Your task to perform on an android device: Clear the shopping cart on amazon. Add bose soundlink mini to the cart on amazon Image 0: 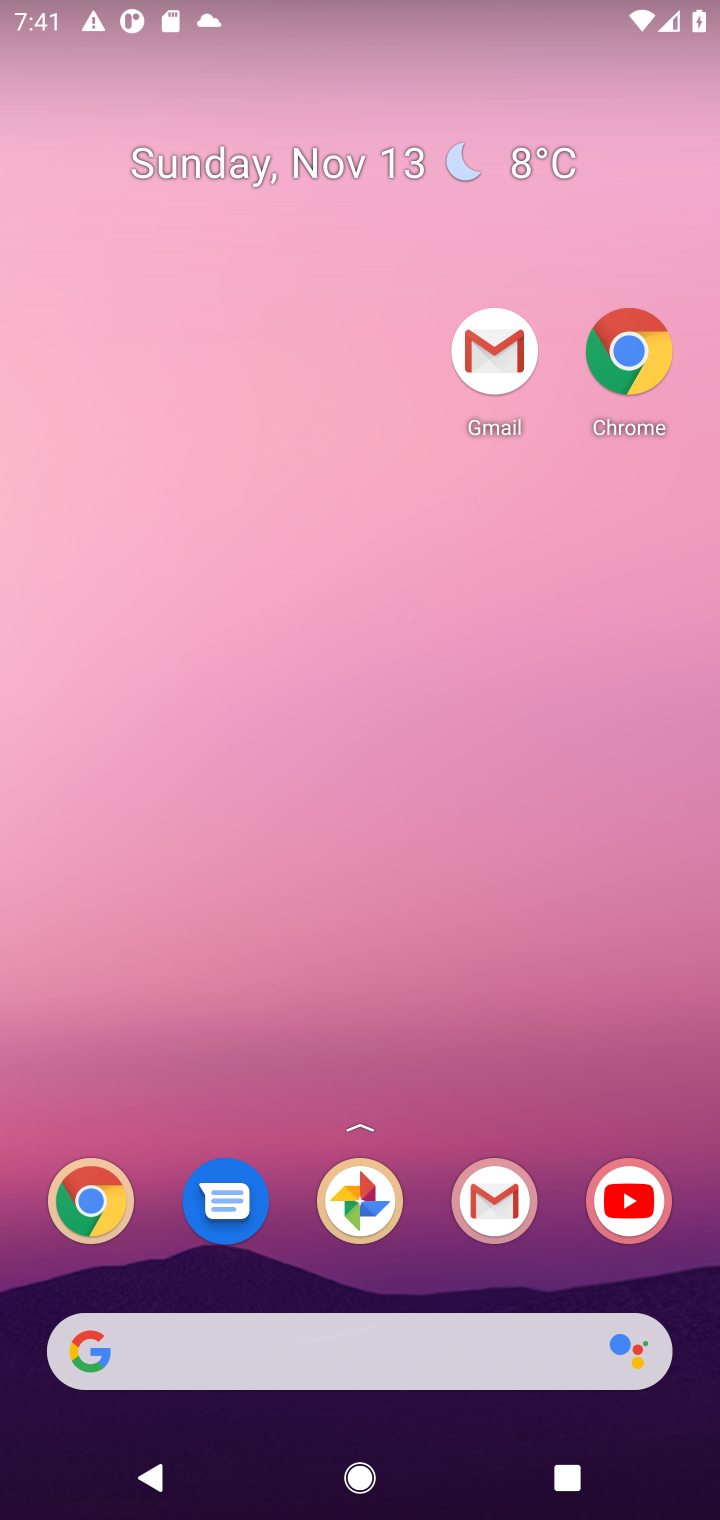
Step 0: drag from (419, 1276) to (286, 287)
Your task to perform on an android device: Clear the shopping cart on amazon. Add bose soundlink mini to the cart on amazon Image 1: 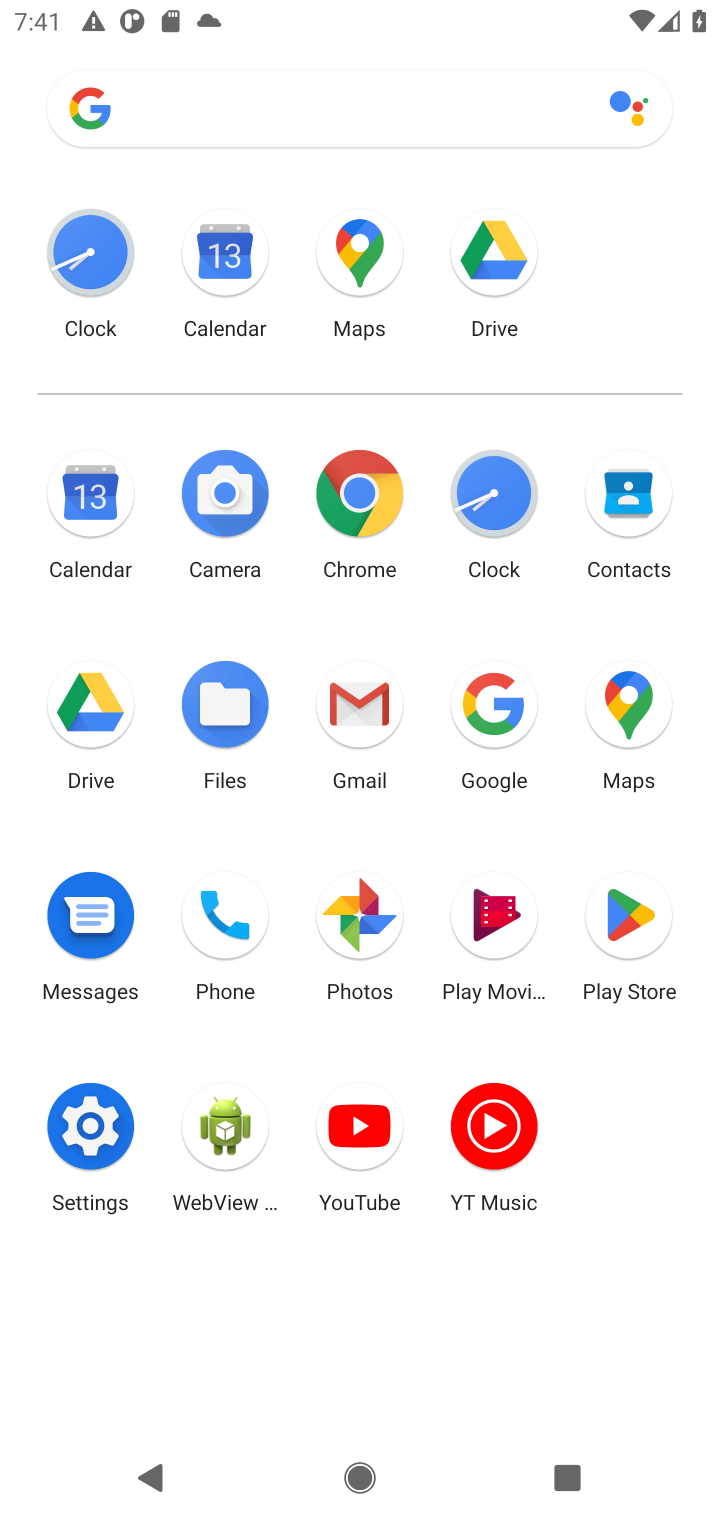
Step 1: click (363, 499)
Your task to perform on an android device: Clear the shopping cart on amazon. Add bose soundlink mini to the cart on amazon Image 2: 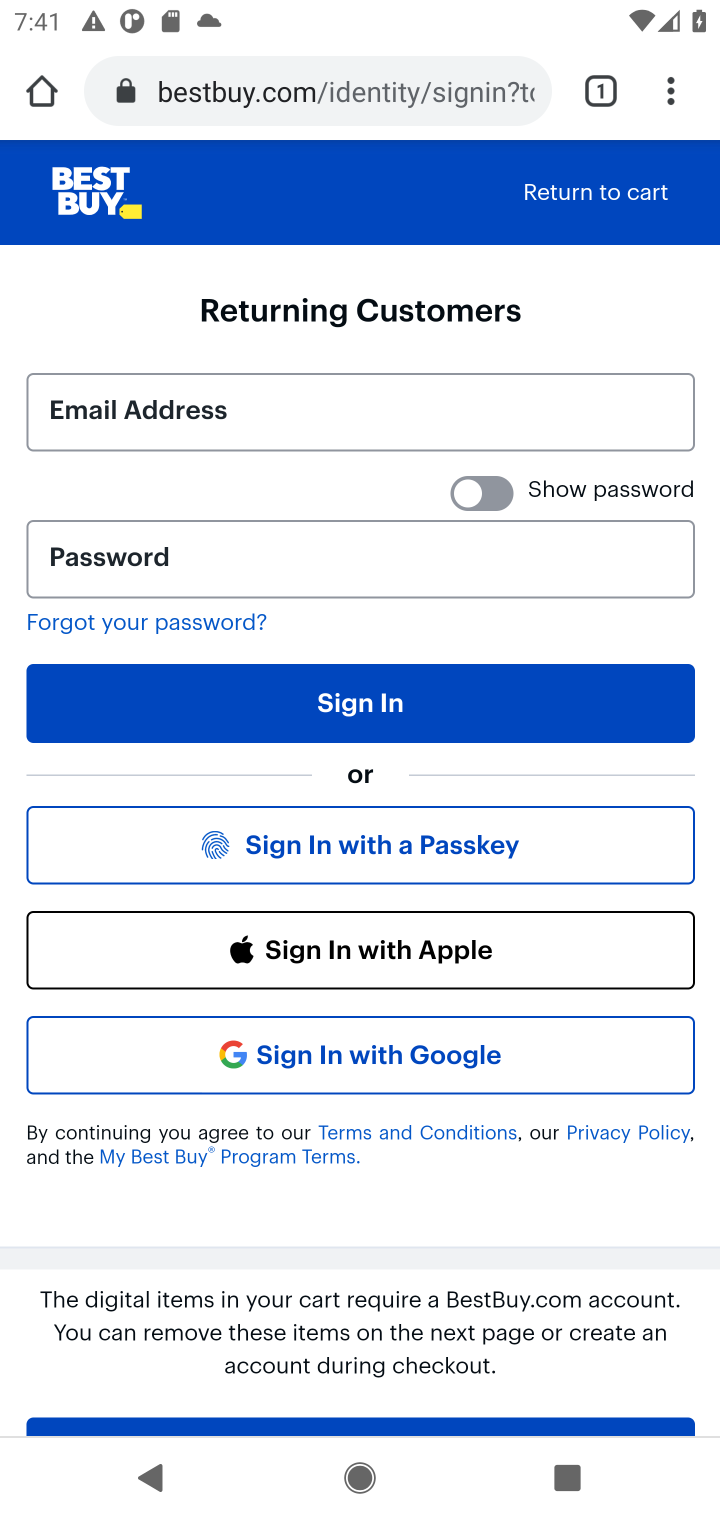
Step 2: click (420, 89)
Your task to perform on an android device: Clear the shopping cart on amazon. Add bose soundlink mini to the cart on amazon Image 3: 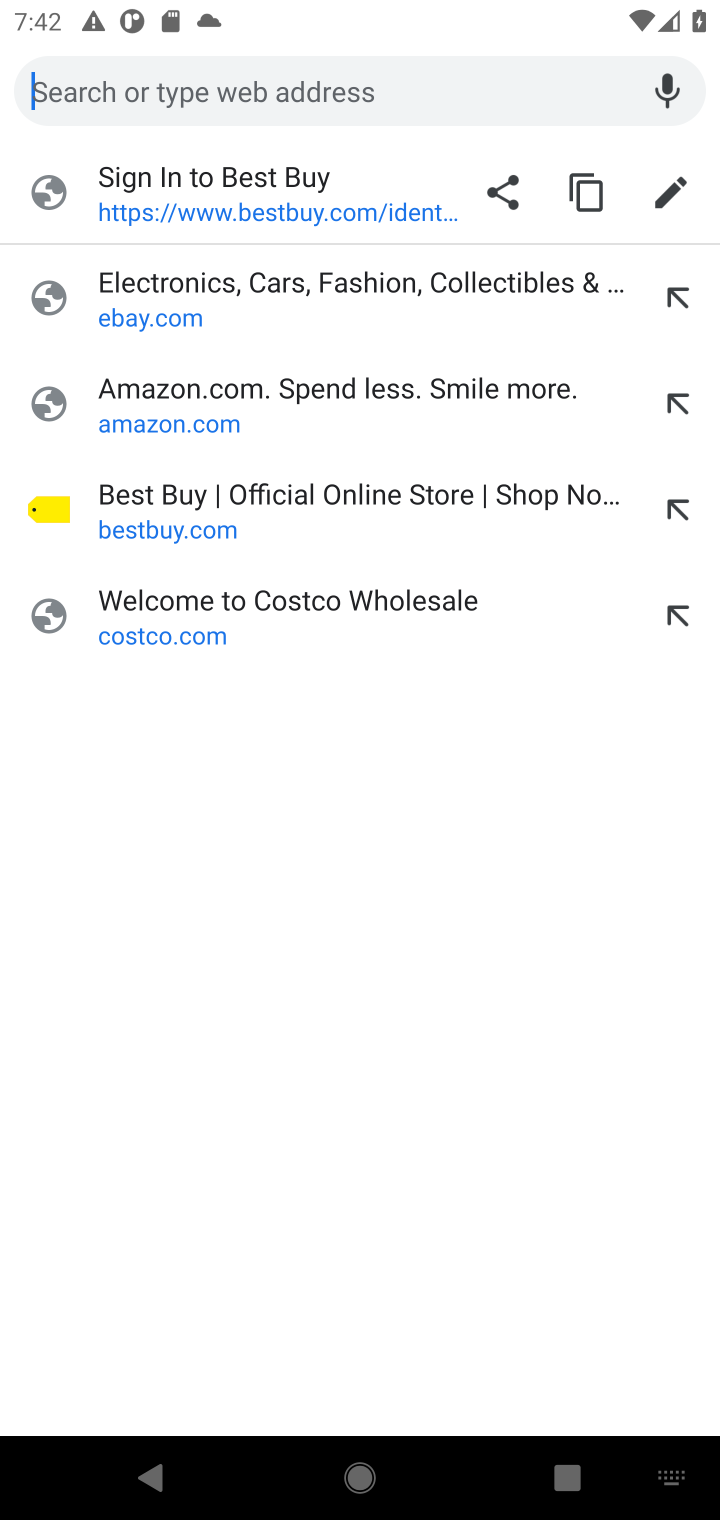
Step 3: type "amazon.com"
Your task to perform on an android device: Clear the shopping cart on amazon. Add bose soundlink mini to the cart on amazon Image 4: 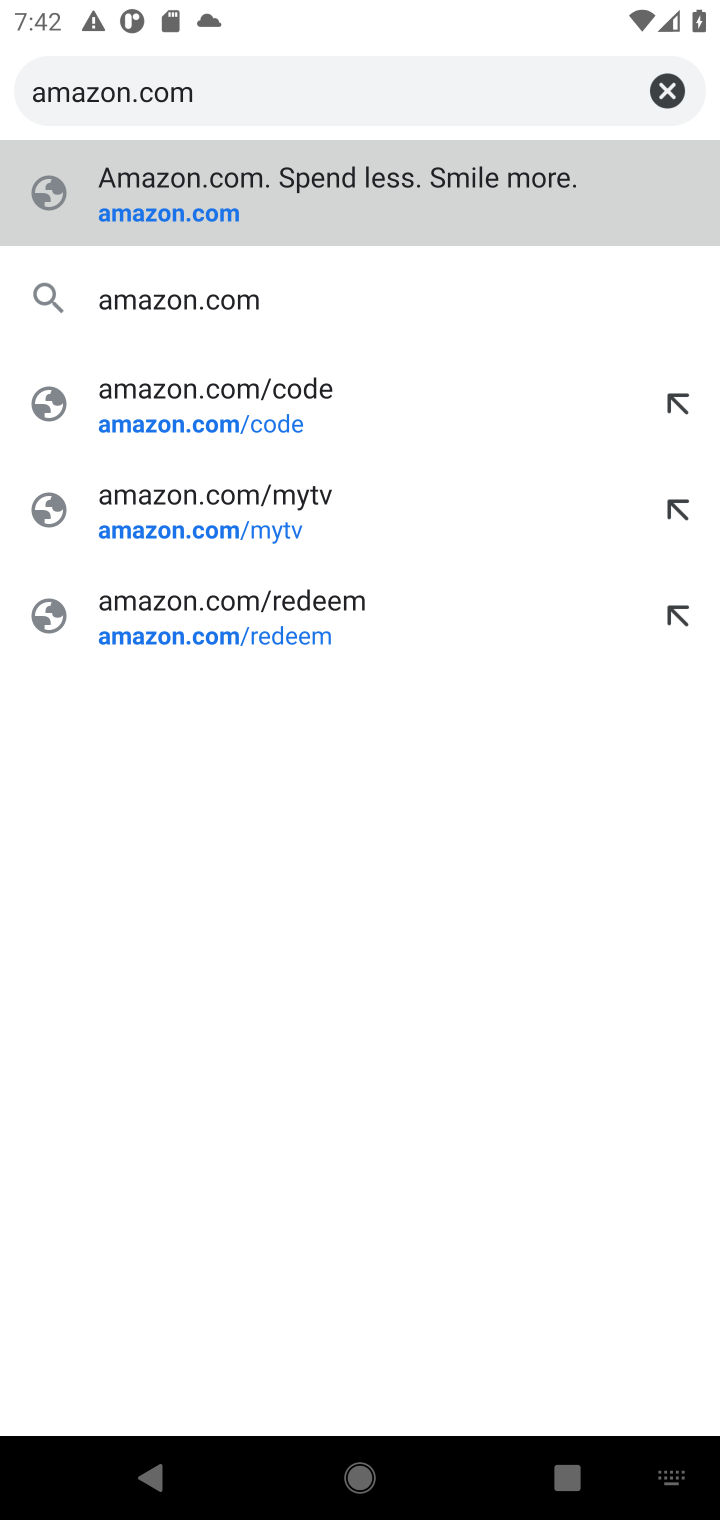
Step 4: press enter
Your task to perform on an android device: Clear the shopping cart on amazon. Add bose soundlink mini to the cart on amazon Image 5: 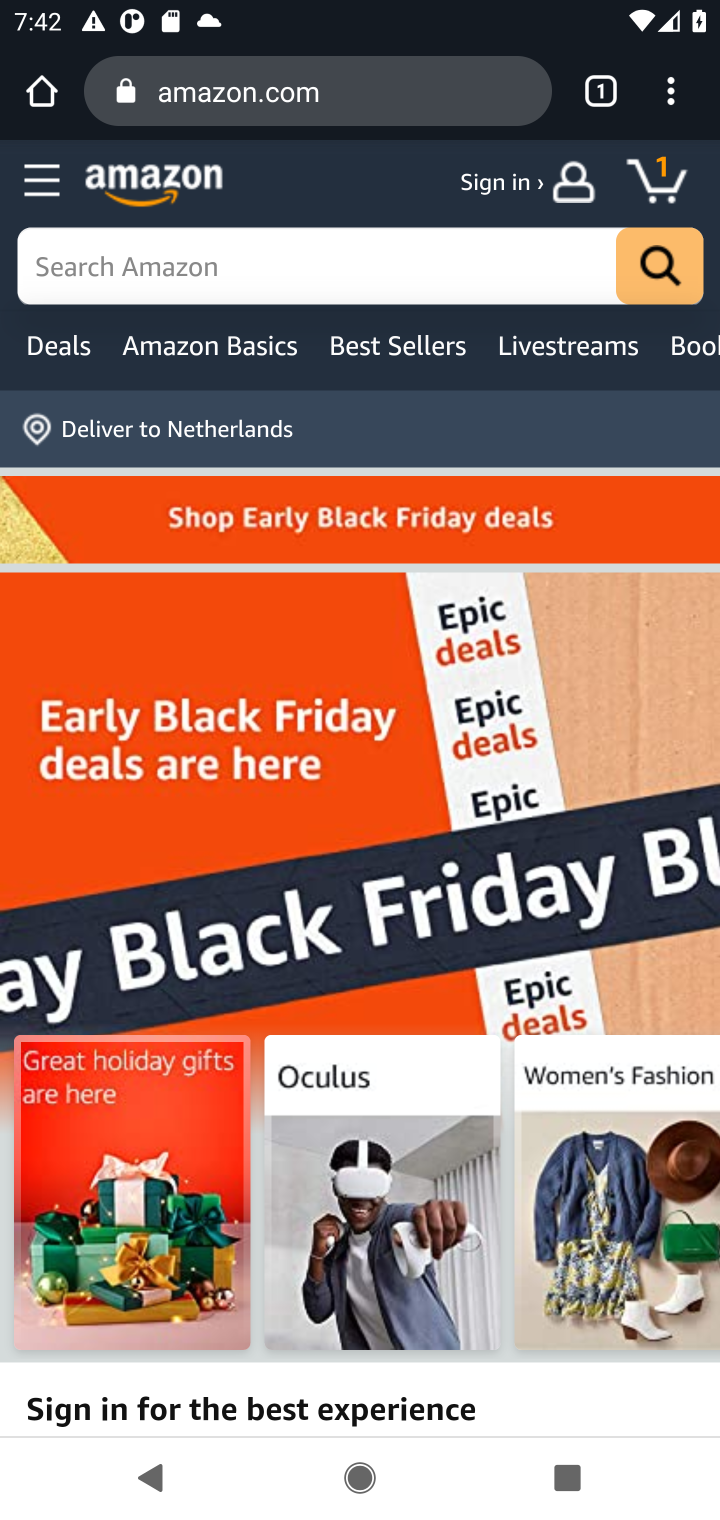
Step 5: click (657, 177)
Your task to perform on an android device: Clear the shopping cart on amazon. Add bose soundlink mini to the cart on amazon Image 6: 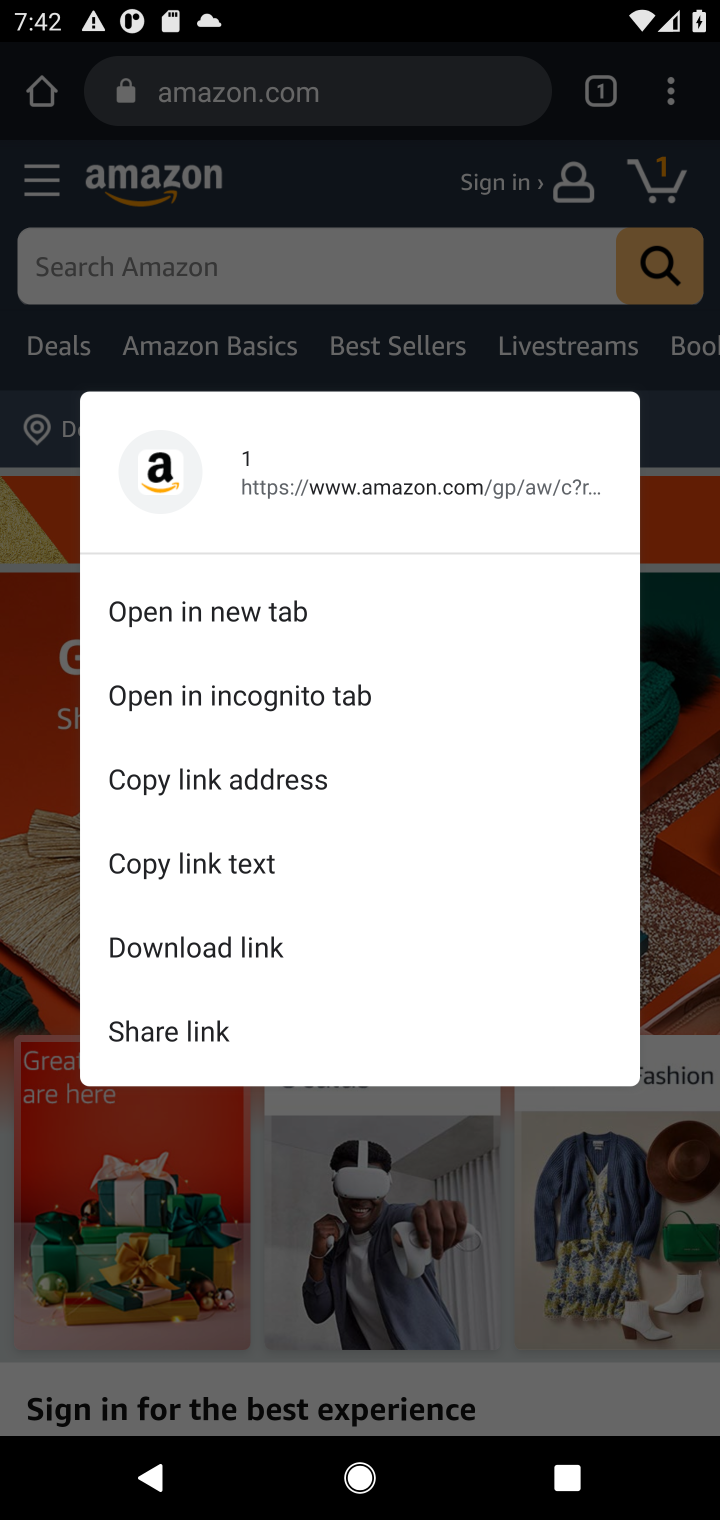
Step 6: click (663, 170)
Your task to perform on an android device: Clear the shopping cart on amazon. Add bose soundlink mini to the cart on amazon Image 7: 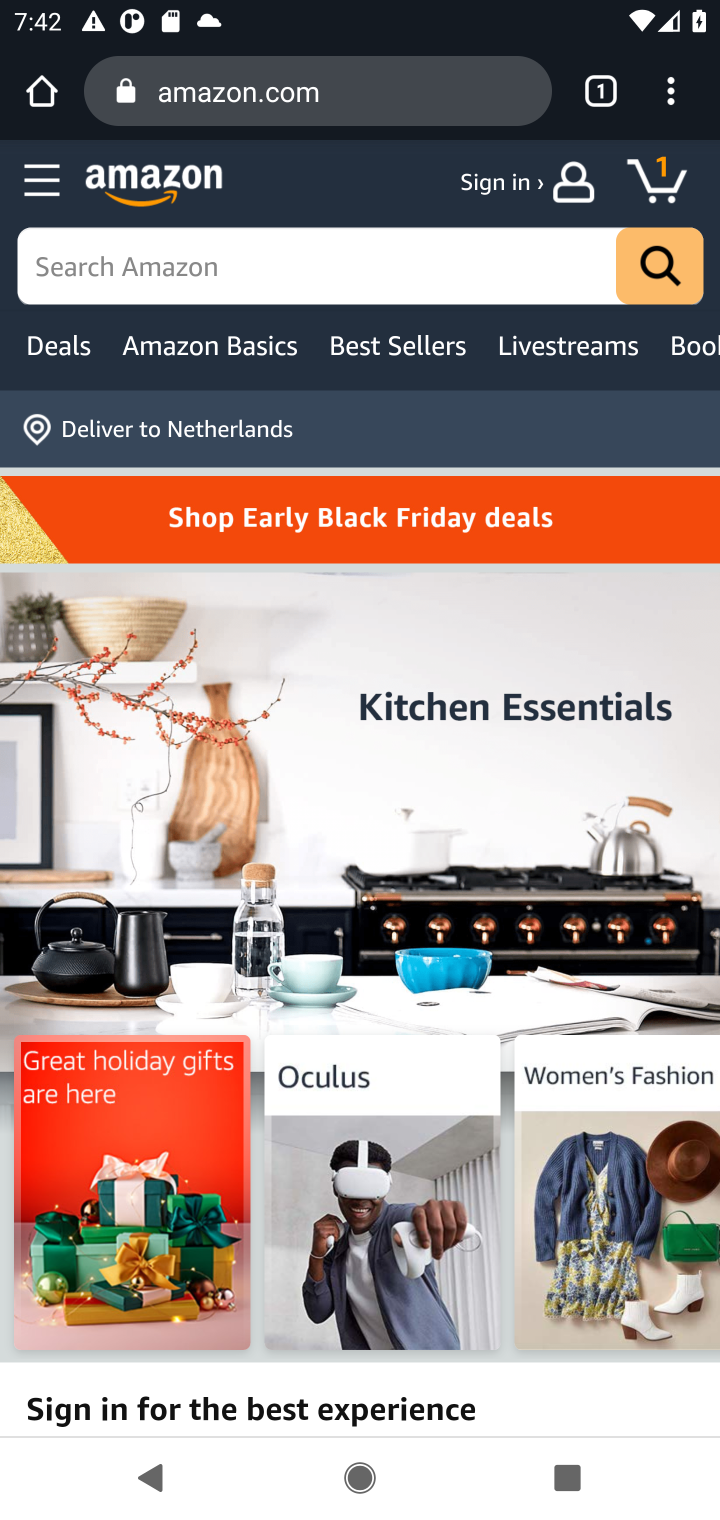
Step 7: click (663, 184)
Your task to perform on an android device: Clear the shopping cart on amazon. Add bose soundlink mini to the cart on amazon Image 8: 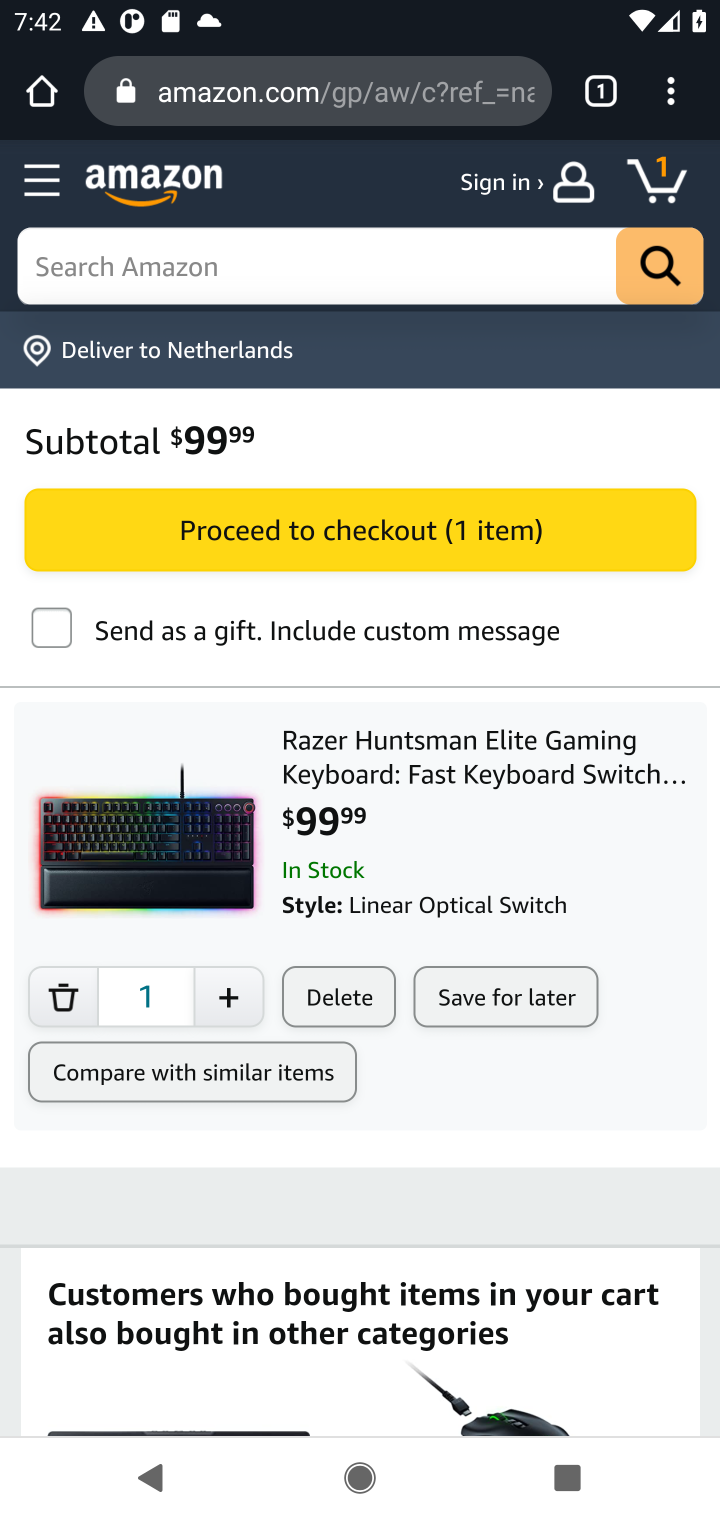
Step 8: click (326, 987)
Your task to perform on an android device: Clear the shopping cart on amazon. Add bose soundlink mini to the cart on amazon Image 9: 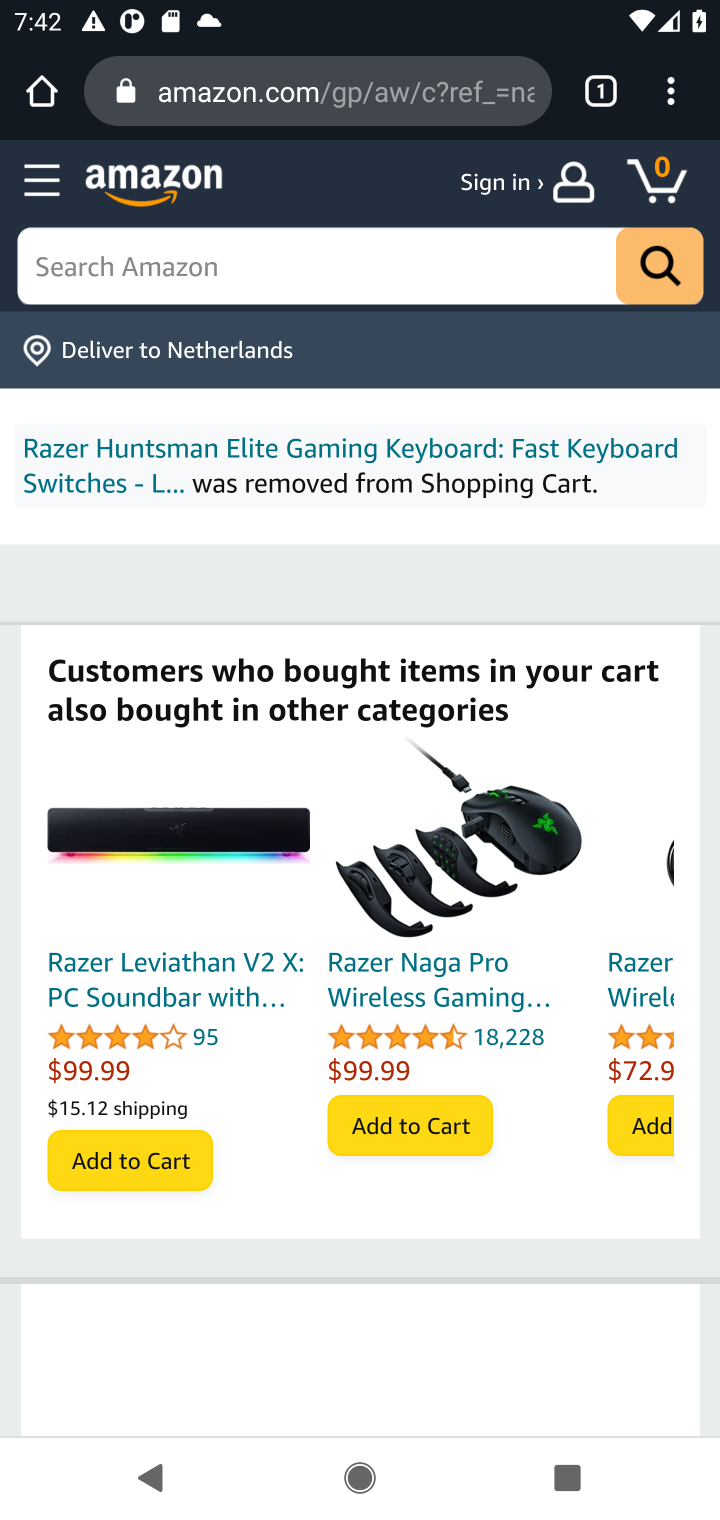
Step 9: click (325, 250)
Your task to perform on an android device: Clear the shopping cart on amazon. Add bose soundlink mini to the cart on amazon Image 10: 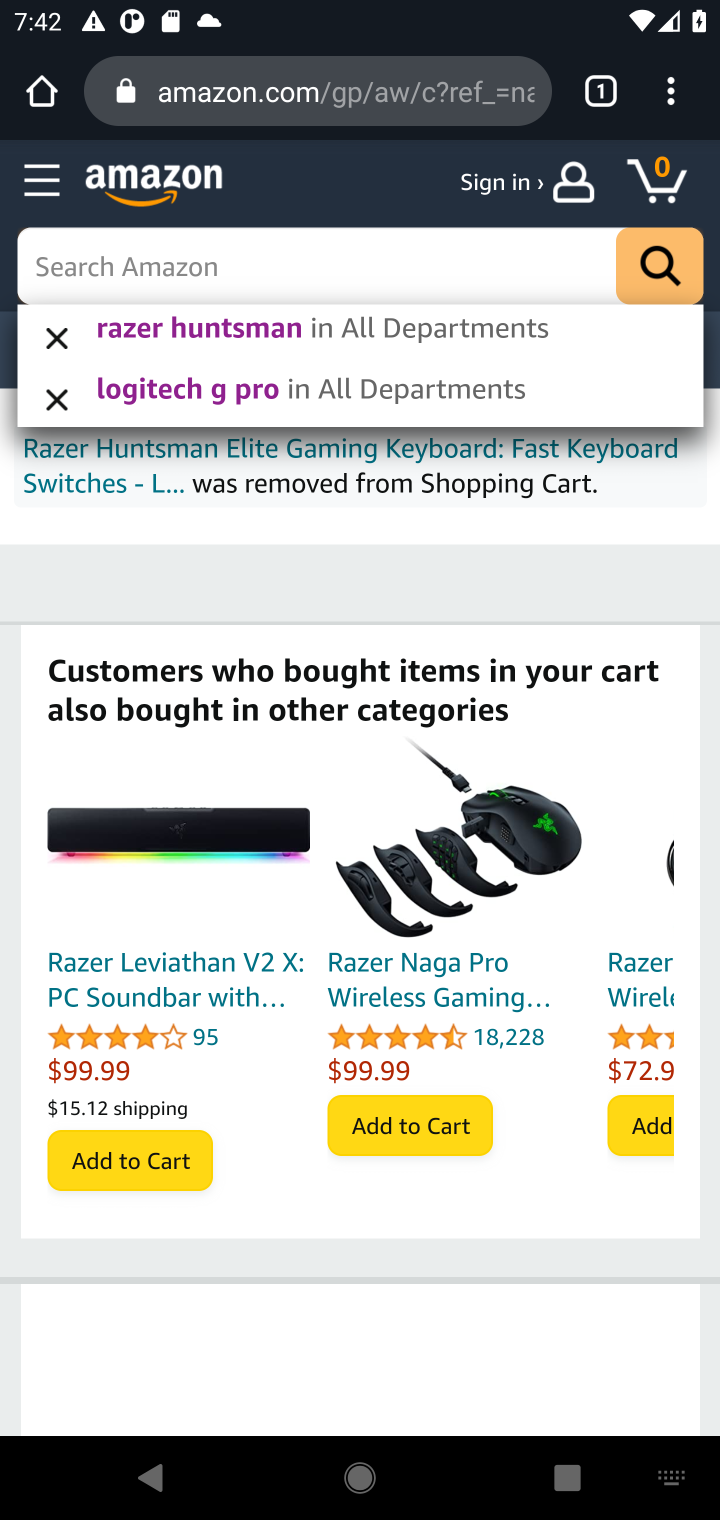
Step 10: type "bose soundlink mini"
Your task to perform on an android device: Clear the shopping cart on amazon. Add bose soundlink mini to the cart on amazon Image 11: 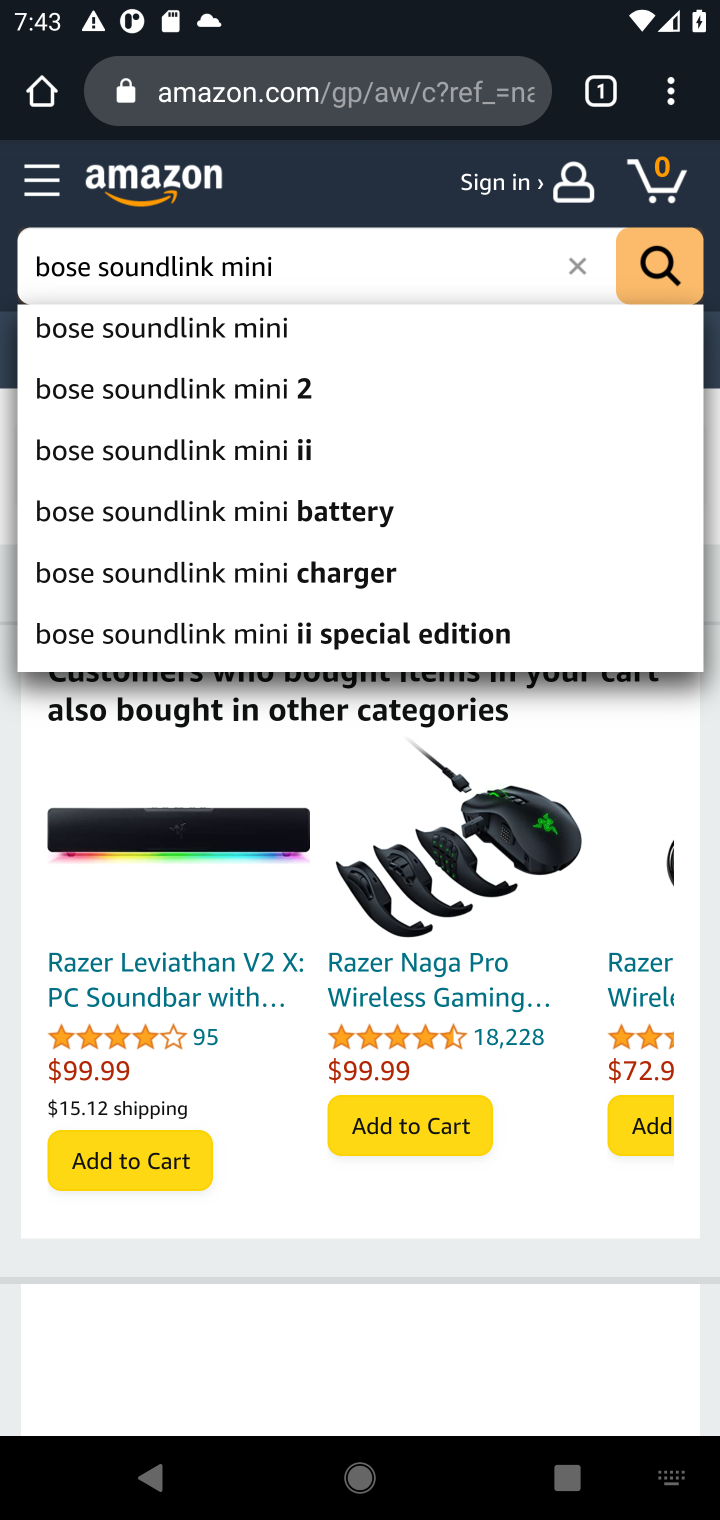
Step 11: press enter
Your task to perform on an android device: Clear the shopping cart on amazon. Add bose soundlink mini to the cart on amazon Image 12: 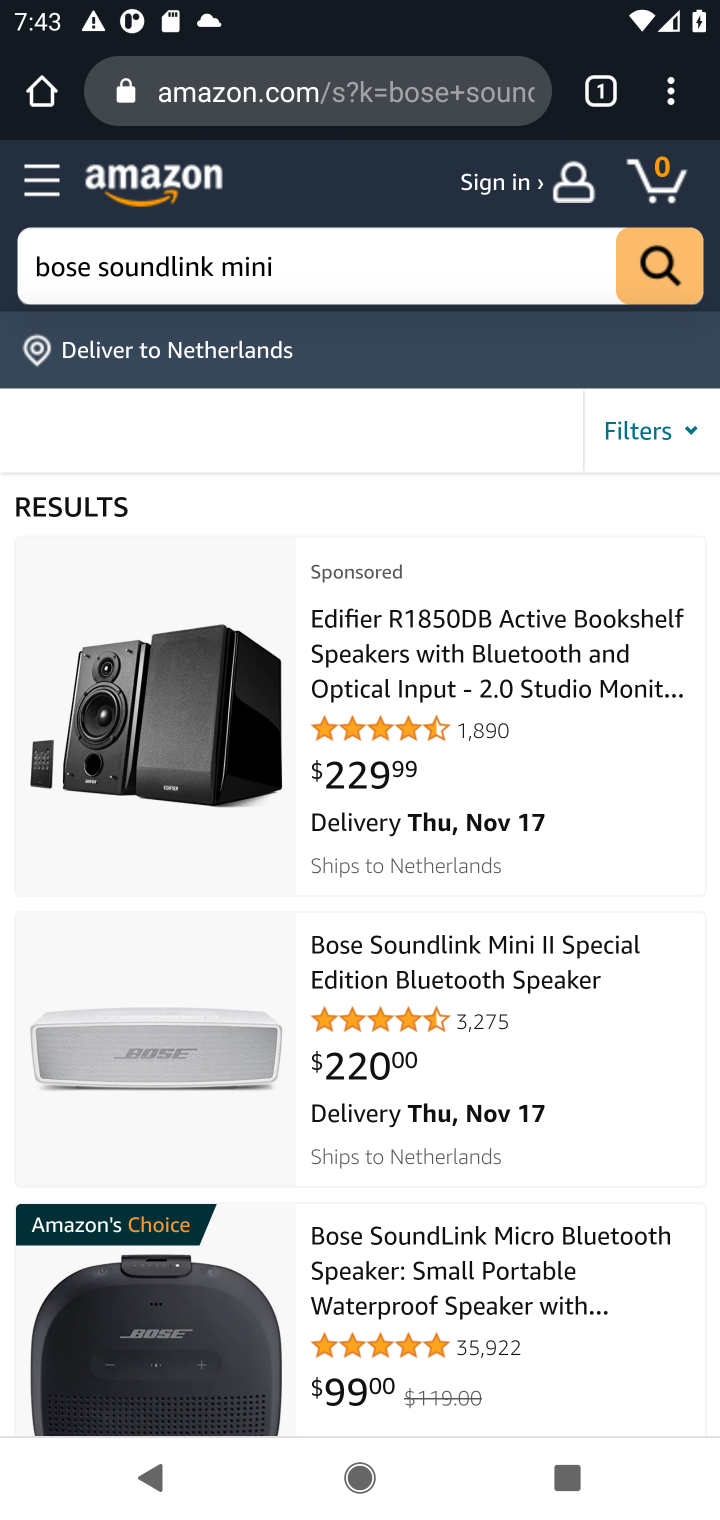
Step 12: press enter
Your task to perform on an android device: Clear the shopping cart on amazon. Add bose soundlink mini to the cart on amazon Image 13: 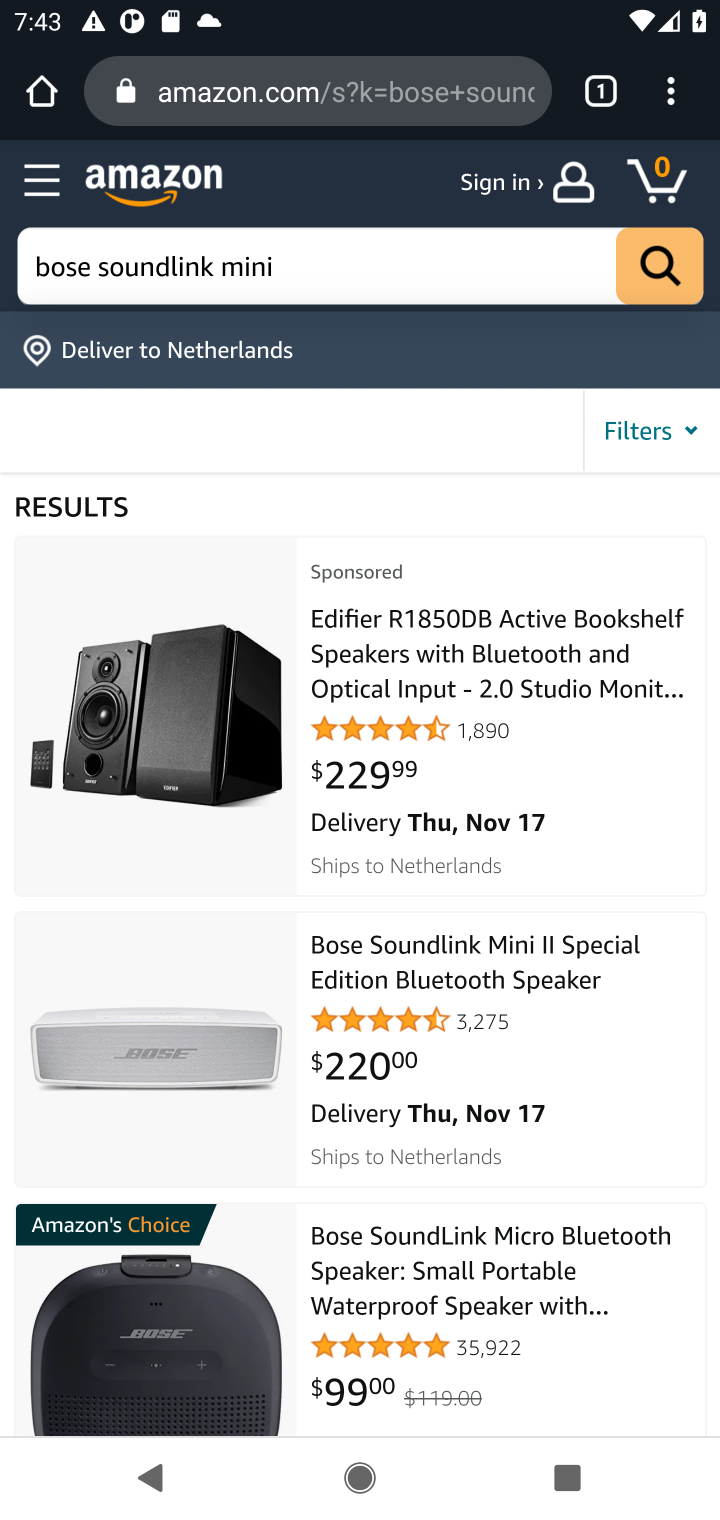
Step 13: click (459, 990)
Your task to perform on an android device: Clear the shopping cart on amazon. Add bose soundlink mini to the cart on amazon Image 14: 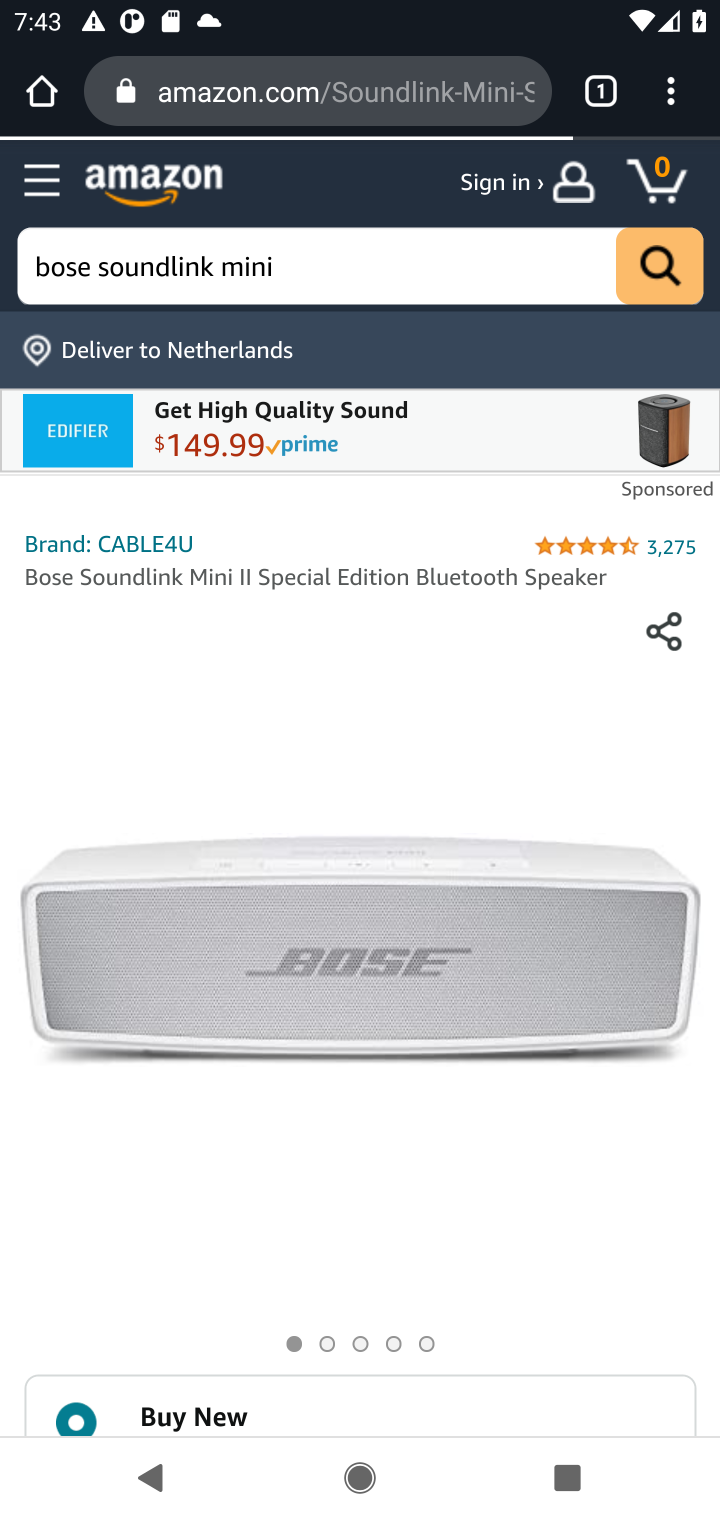
Step 14: drag from (391, 1050) to (366, 124)
Your task to perform on an android device: Clear the shopping cart on amazon. Add bose soundlink mini to the cart on amazon Image 15: 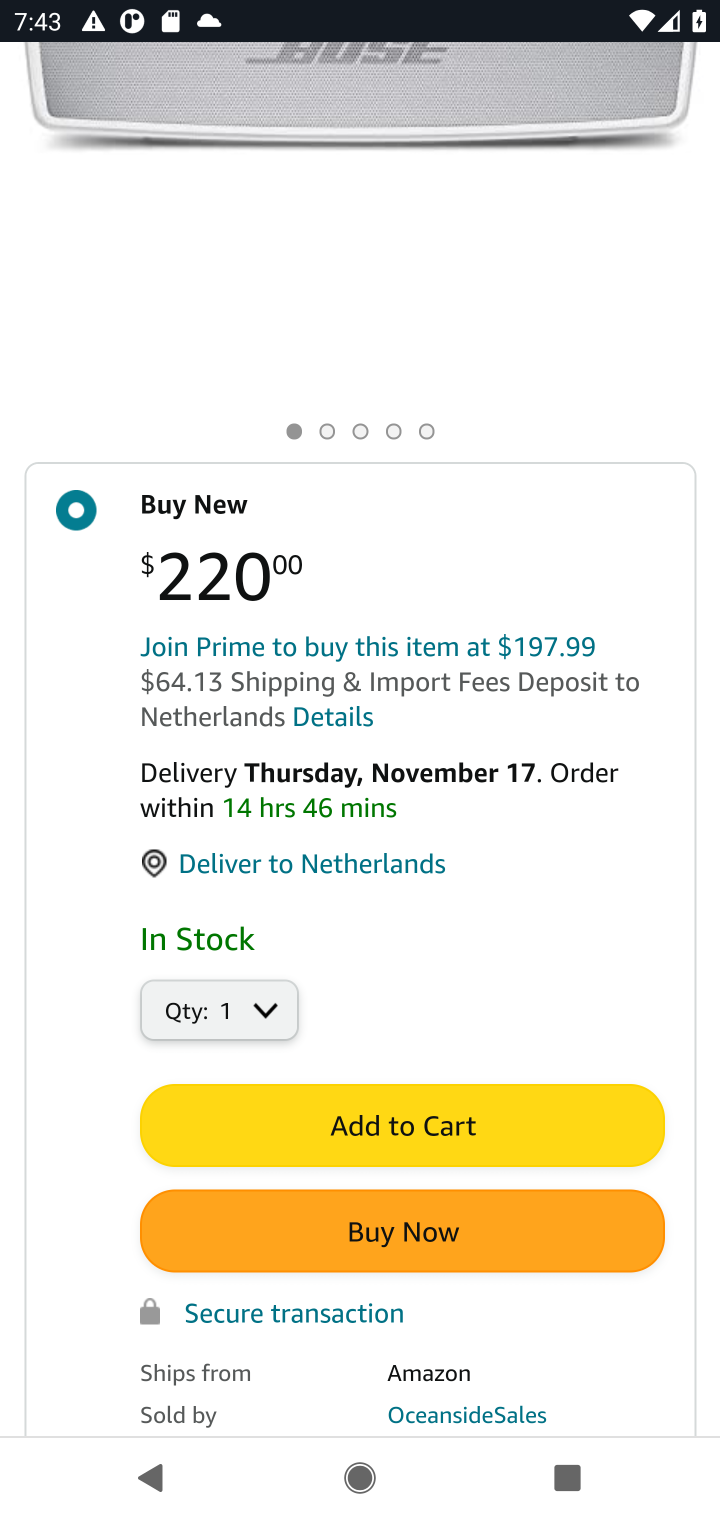
Step 15: drag from (560, 436) to (493, 1388)
Your task to perform on an android device: Clear the shopping cart on amazon. Add bose soundlink mini to the cart on amazon Image 16: 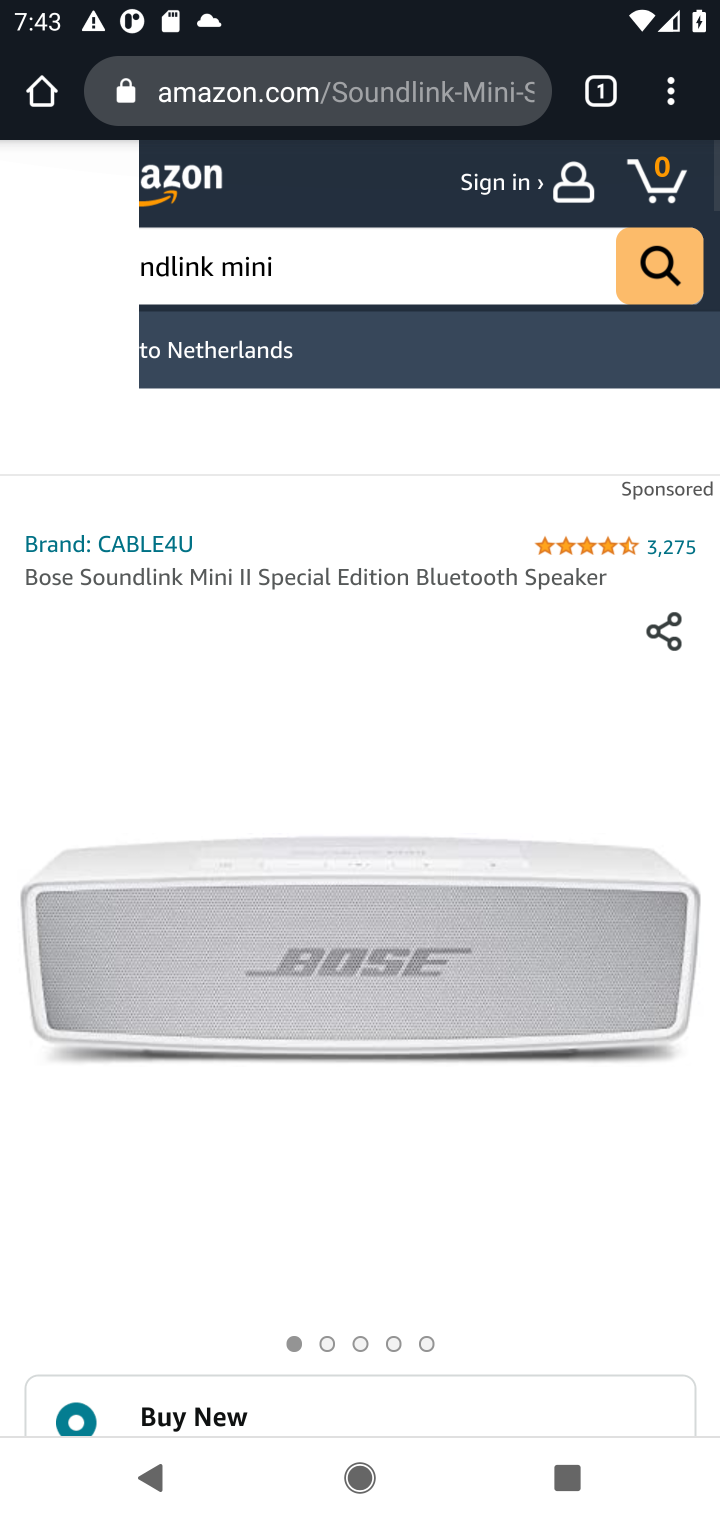
Step 16: drag from (474, 330) to (436, 57)
Your task to perform on an android device: Clear the shopping cart on amazon. Add bose soundlink mini to the cart on amazon Image 17: 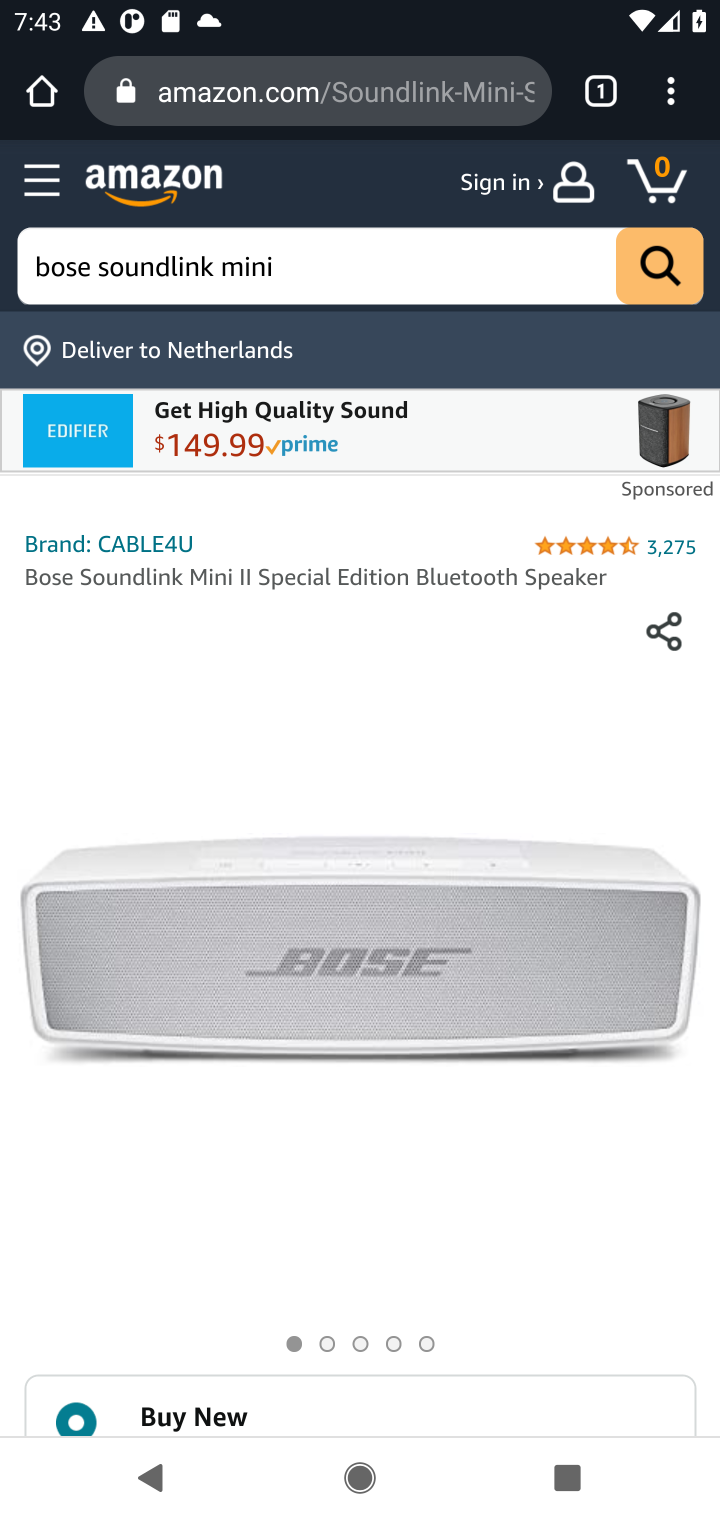
Step 17: drag from (387, 1095) to (467, 156)
Your task to perform on an android device: Clear the shopping cart on amazon. Add bose soundlink mini to the cart on amazon Image 18: 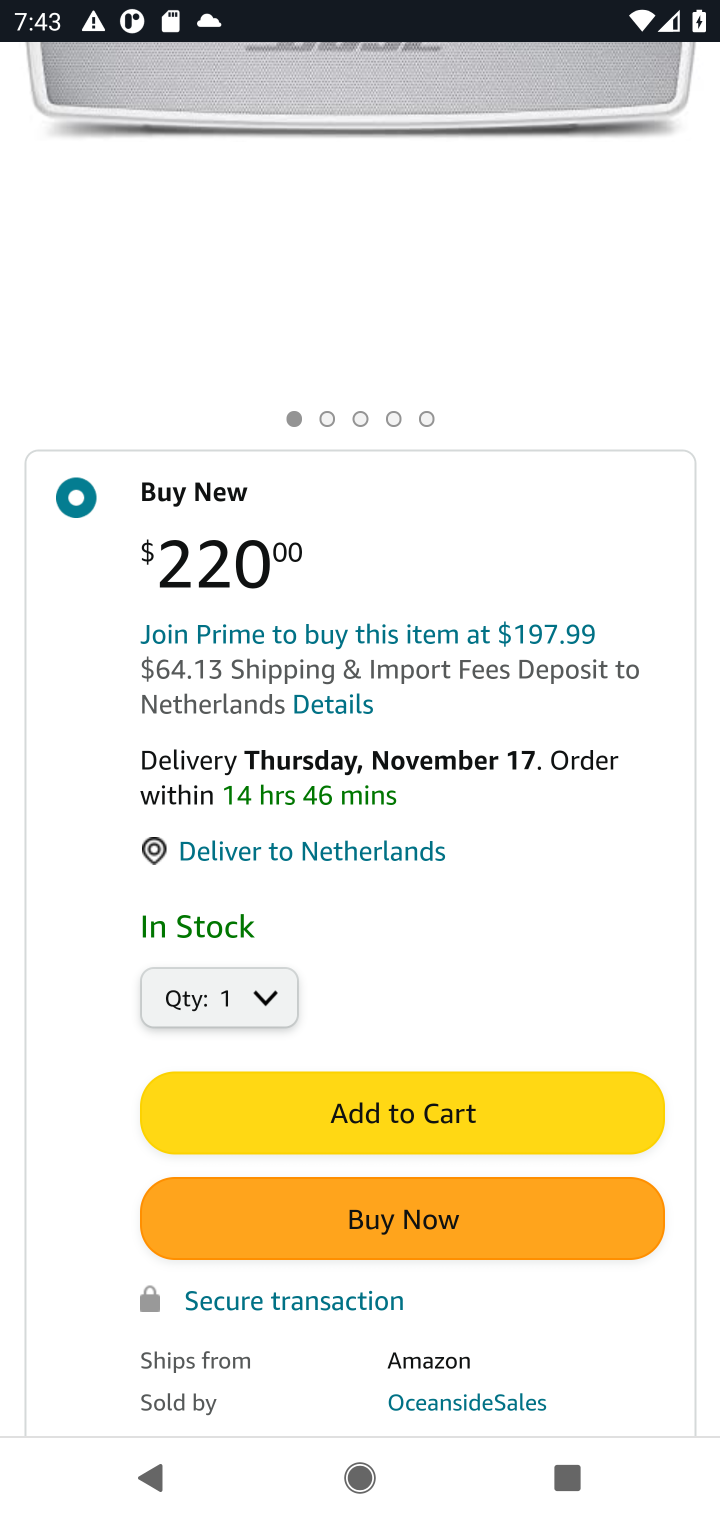
Step 18: click (445, 1112)
Your task to perform on an android device: Clear the shopping cart on amazon. Add bose soundlink mini to the cart on amazon Image 19: 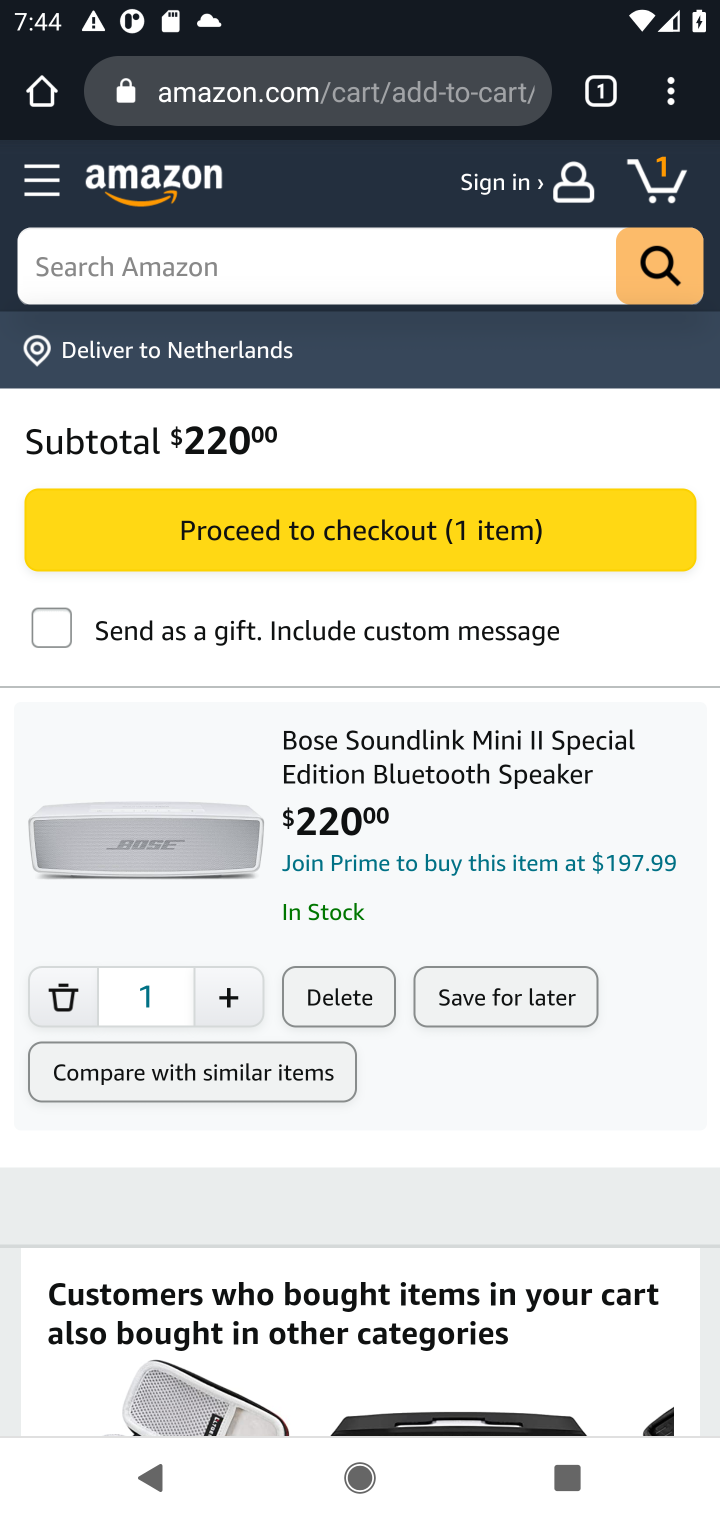
Step 19: task complete